Your task to perform on an android device: turn off location history Image 0: 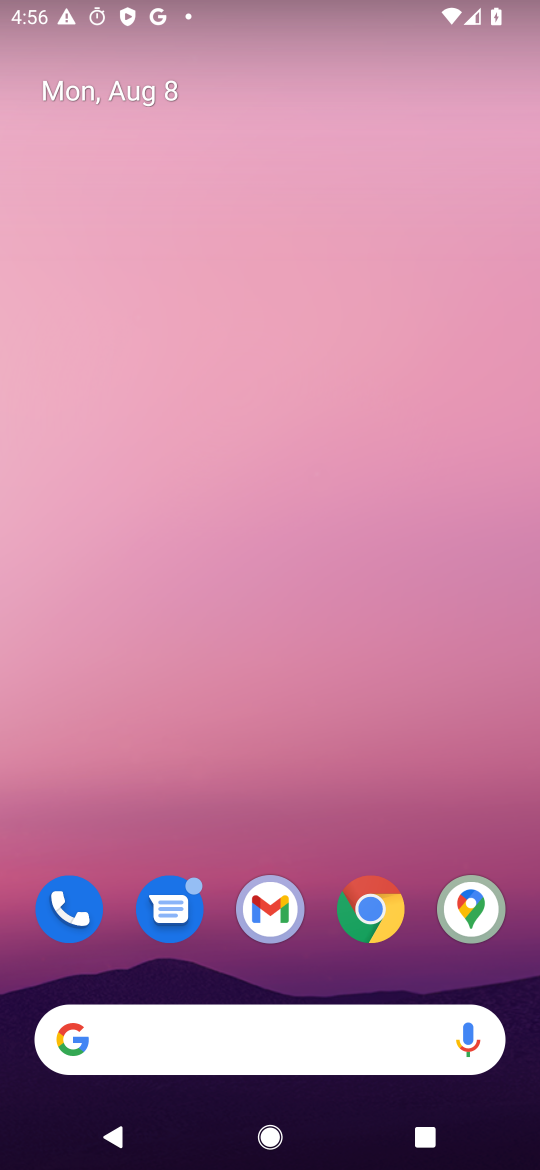
Step 0: drag from (243, 1055) to (428, 228)
Your task to perform on an android device: turn off location history Image 1: 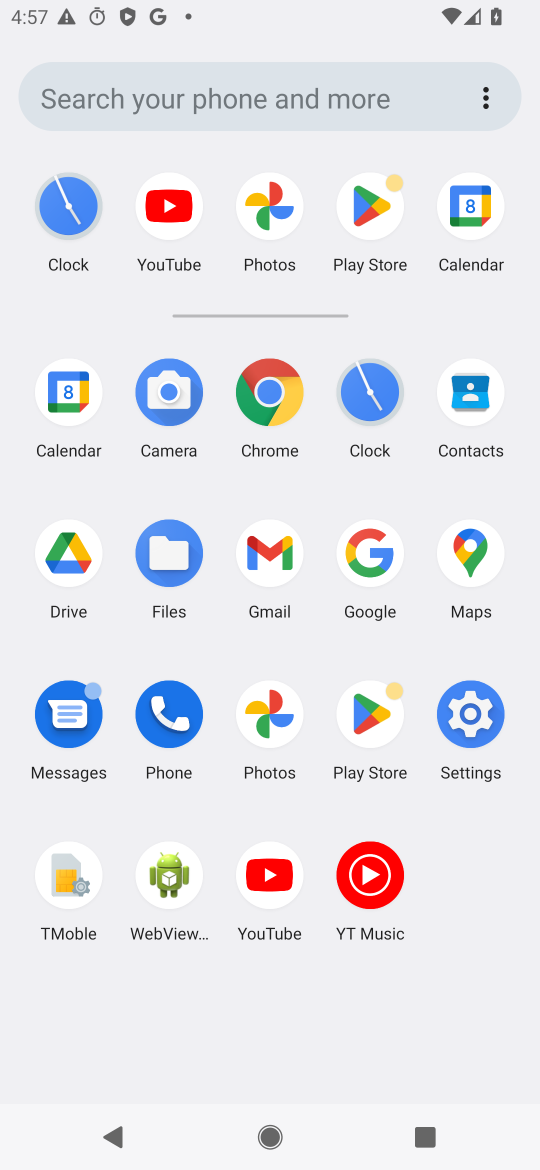
Step 1: click (466, 719)
Your task to perform on an android device: turn off location history Image 2: 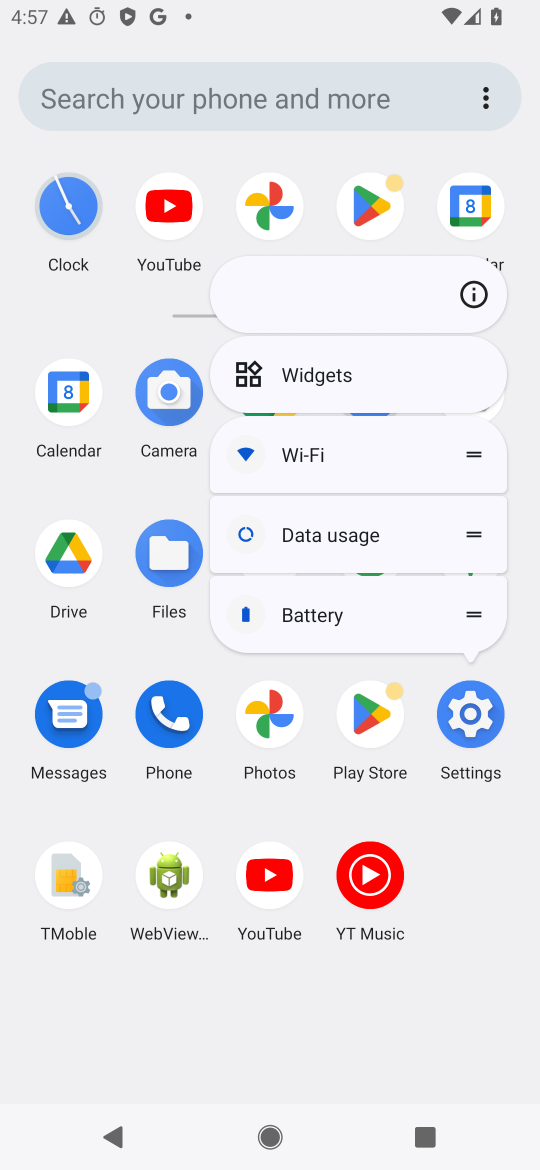
Step 2: click (473, 718)
Your task to perform on an android device: turn off location history Image 3: 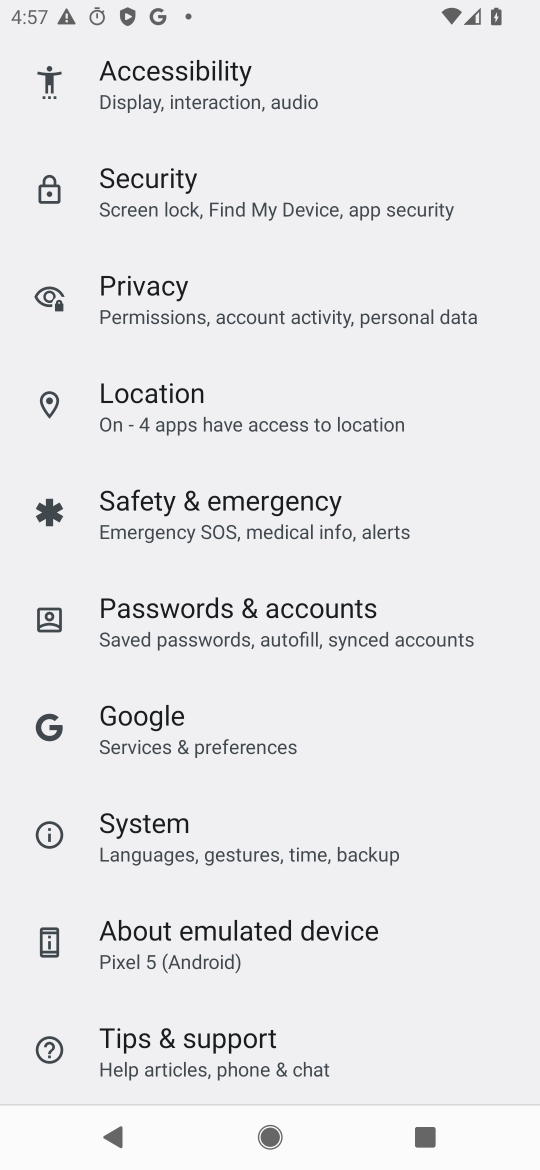
Step 3: drag from (332, 258) to (321, 843)
Your task to perform on an android device: turn off location history Image 4: 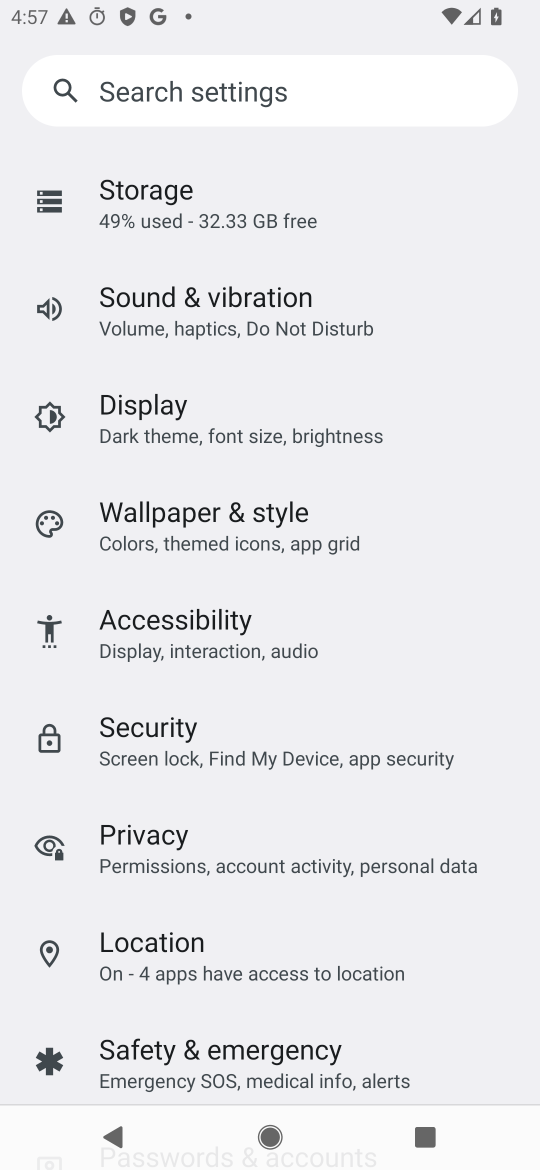
Step 4: click (179, 943)
Your task to perform on an android device: turn off location history Image 5: 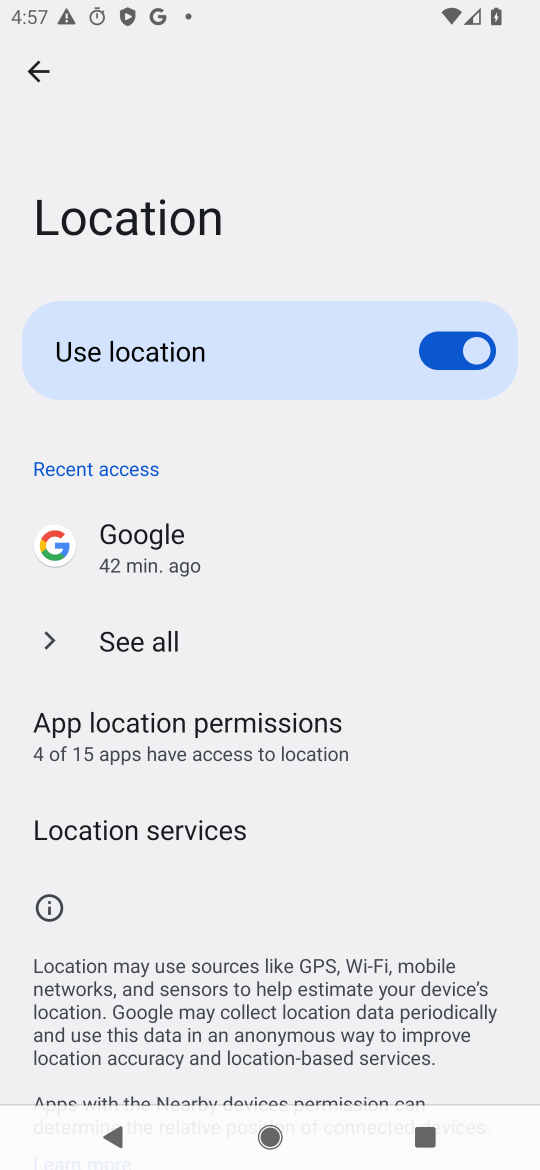
Step 5: drag from (266, 915) to (479, 135)
Your task to perform on an android device: turn off location history Image 6: 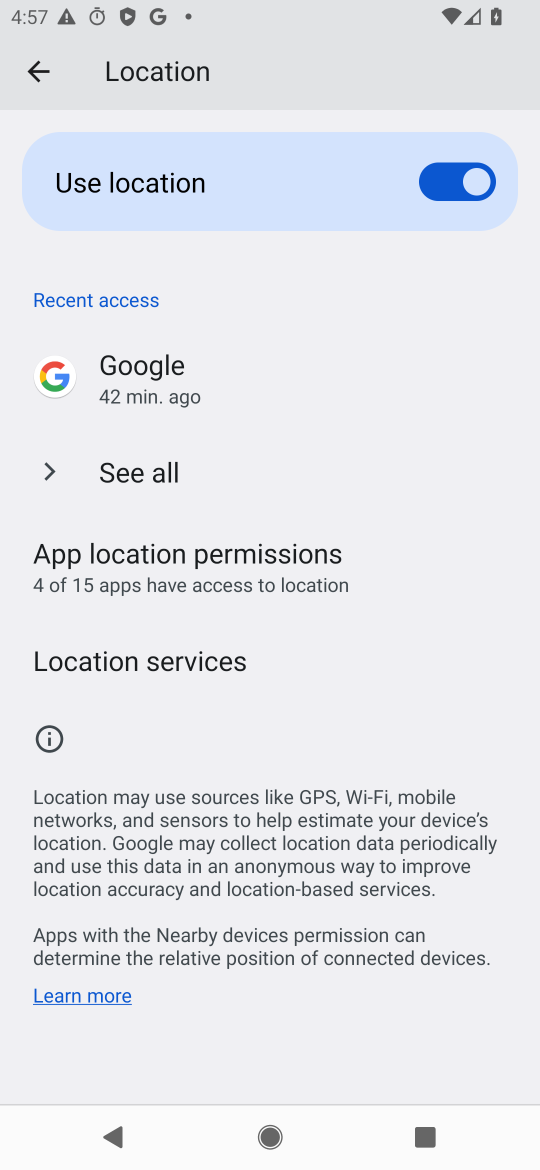
Step 6: click (211, 643)
Your task to perform on an android device: turn off location history Image 7: 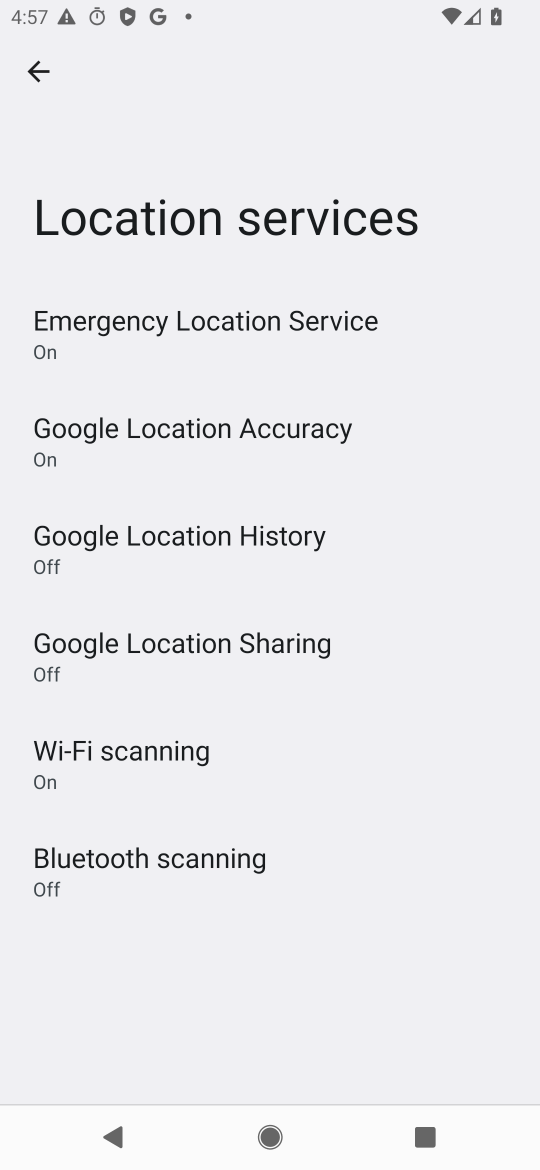
Step 7: click (247, 534)
Your task to perform on an android device: turn off location history Image 8: 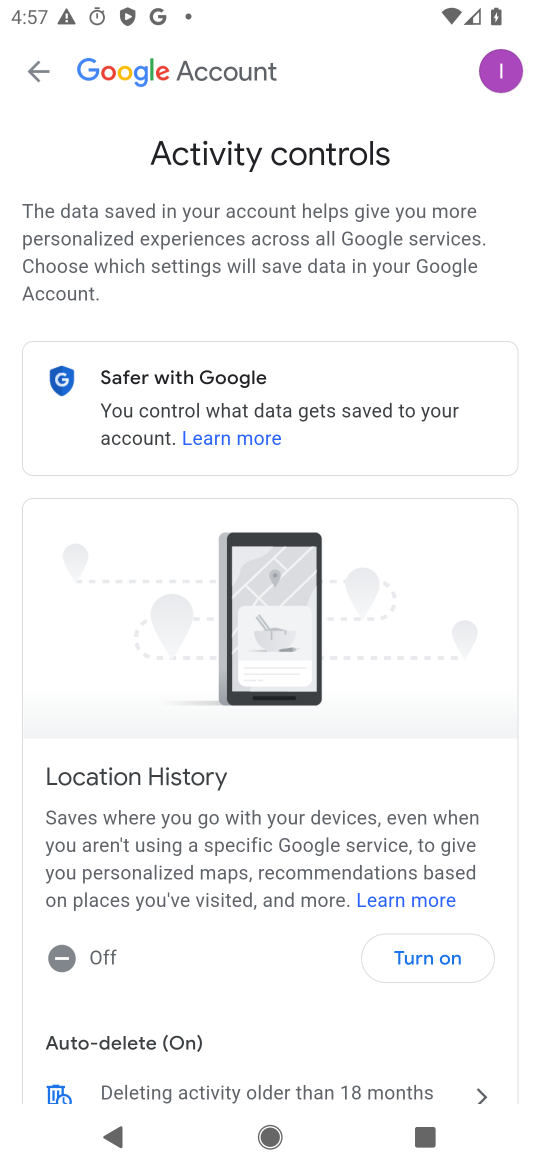
Step 8: task complete